Your task to perform on an android device: find which apps use the phone's location Image 0: 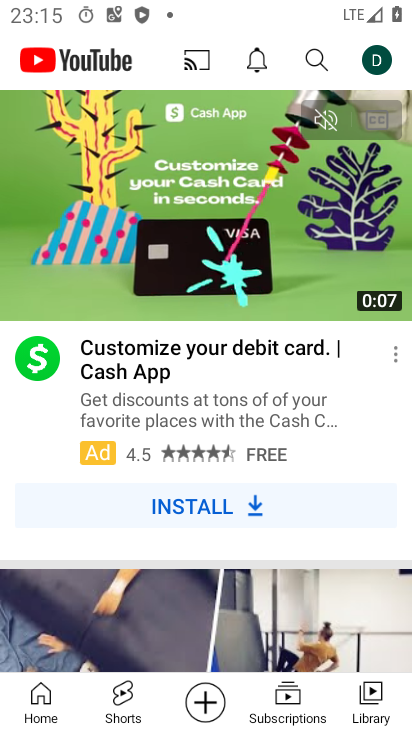
Step 0: press home button
Your task to perform on an android device: find which apps use the phone's location Image 1: 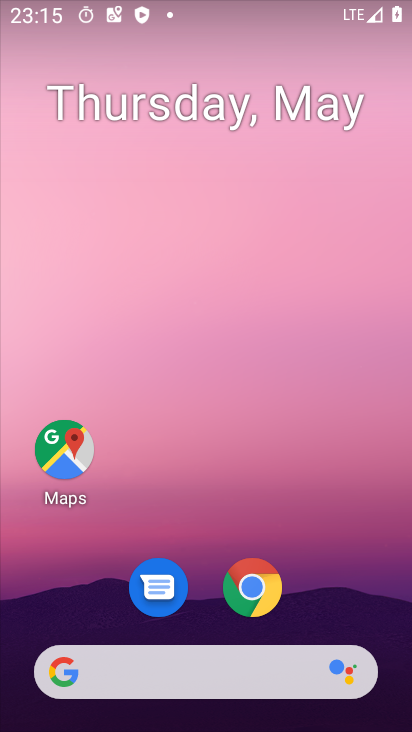
Step 1: drag from (376, 559) to (370, 16)
Your task to perform on an android device: find which apps use the phone's location Image 2: 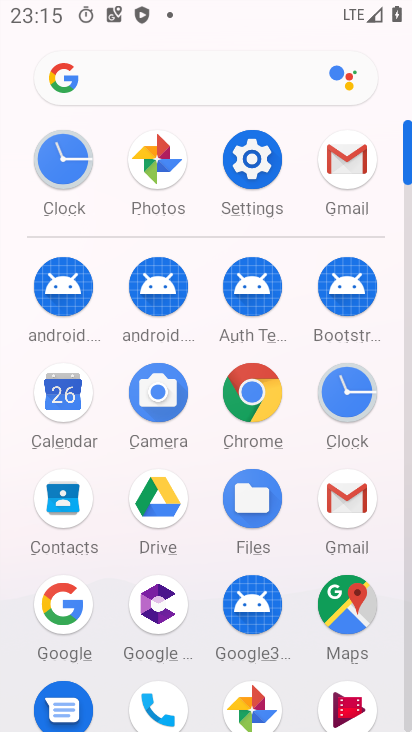
Step 2: click (250, 158)
Your task to perform on an android device: find which apps use the phone's location Image 3: 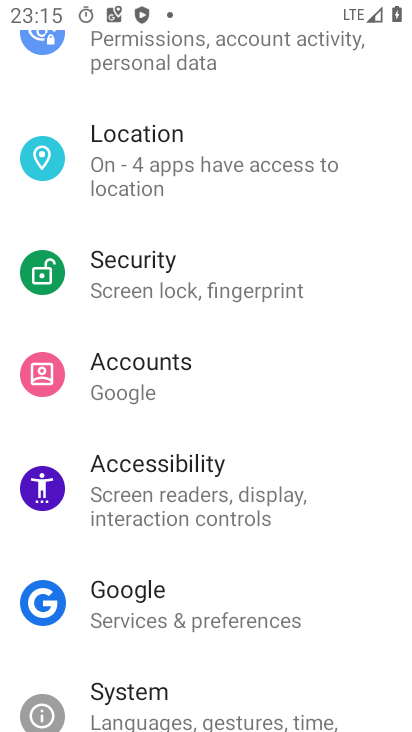
Step 3: click (130, 155)
Your task to perform on an android device: find which apps use the phone's location Image 4: 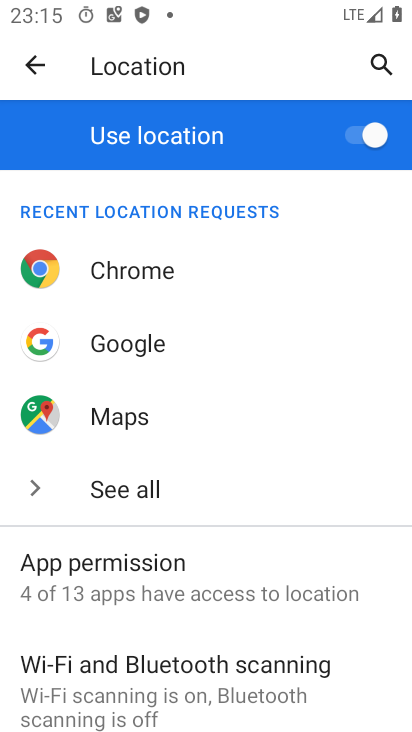
Step 4: drag from (226, 613) to (232, 375)
Your task to perform on an android device: find which apps use the phone's location Image 5: 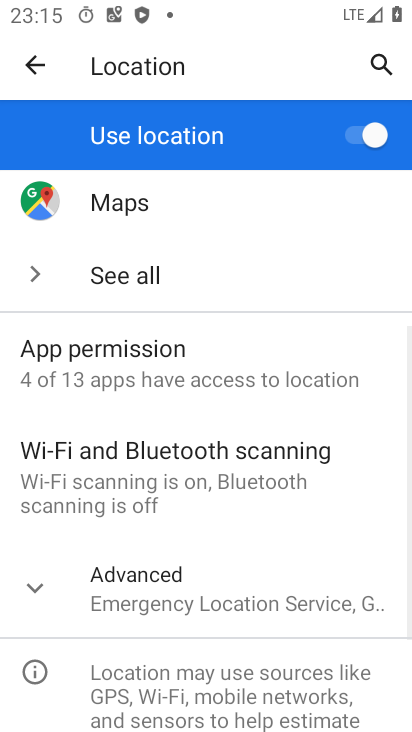
Step 5: click (194, 368)
Your task to perform on an android device: find which apps use the phone's location Image 6: 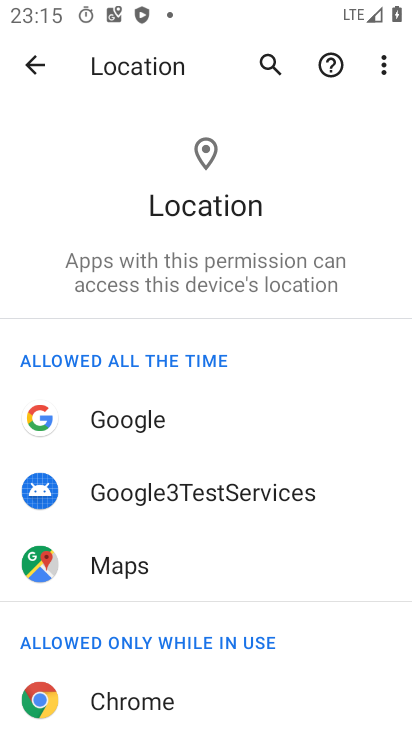
Step 6: task complete